Your task to perform on an android device: Turn off the flashlight Image 0: 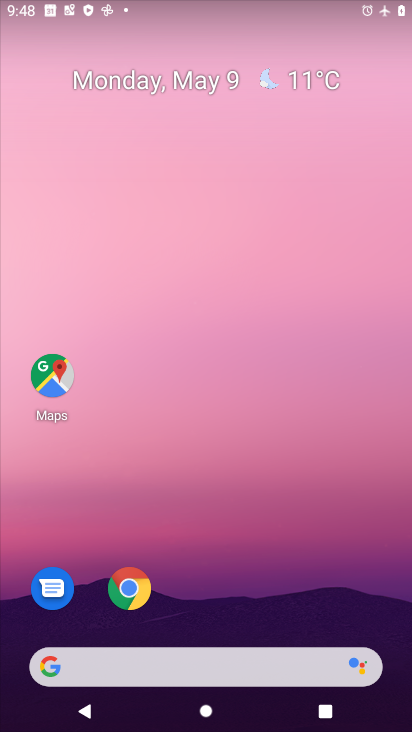
Step 0: drag from (359, 611) to (258, 84)
Your task to perform on an android device: Turn off the flashlight Image 1: 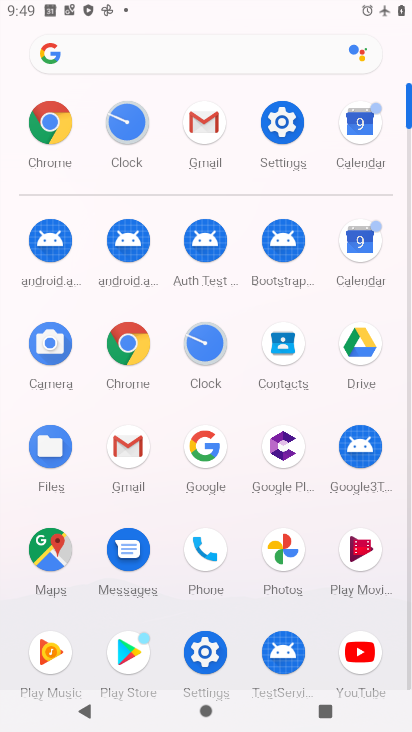
Step 1: click (276, 136)
Your task to perform on an android device: Turn off the flashlight Image 2: 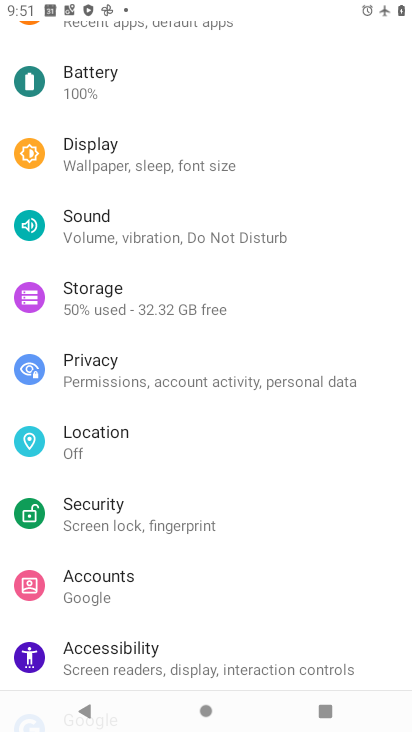
Step 2: task complete